Your task to perform on an android device: Open the phone app and click the voicemail tab. Image 0: 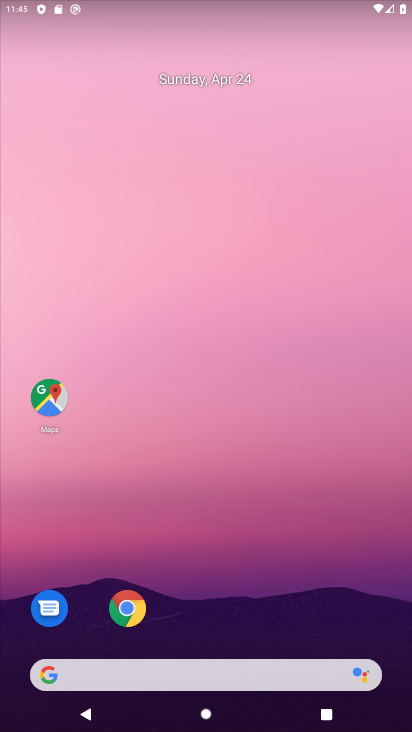
Step 0: drag from (230, 715) to (227, 218)
Your task to perform on an android device: Open the phone app and click the voicemail tab. Image 1: 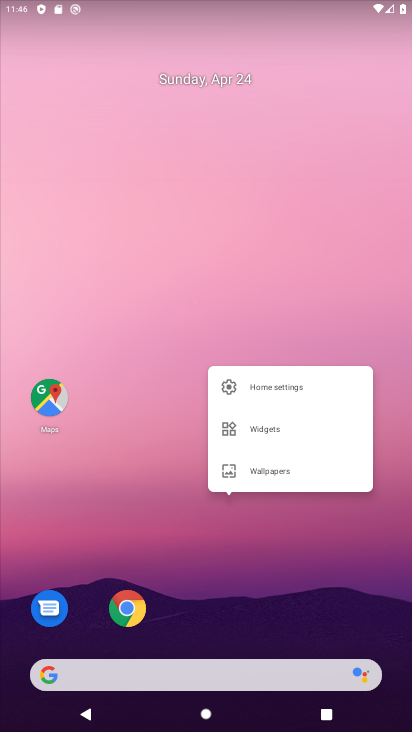
Step 1: click (220, 322)
Your task to perform on an android device: Open the phone app and click the voicemail tab. Image 2: 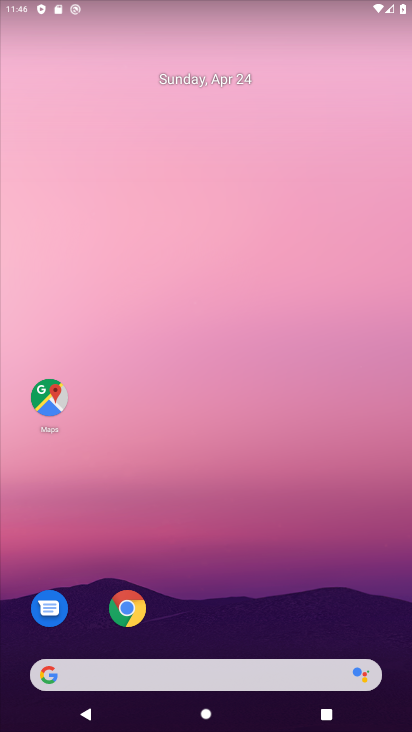
Step 2: drag from (245, 725) to (232, 108)
Your task to perform on an android device: Open the phone app and click the voicemail tab. Image 3: 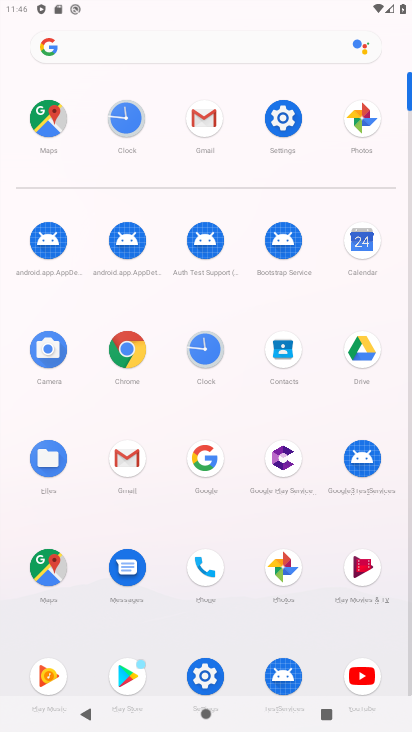
Step 3: click (202, 562)
Your task to perform on an android device: Open the phone app and click the voicemail tab. Image 4: 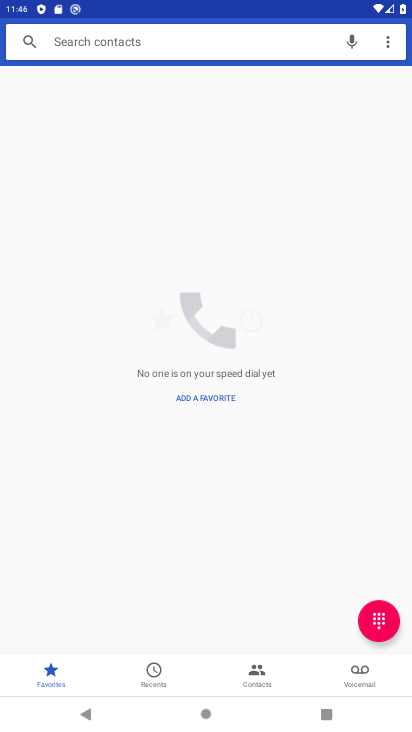
Step 4: click (363, 680)
Your task to perform on an android device: Open the phone app and click the voicemail tab. Image 5: 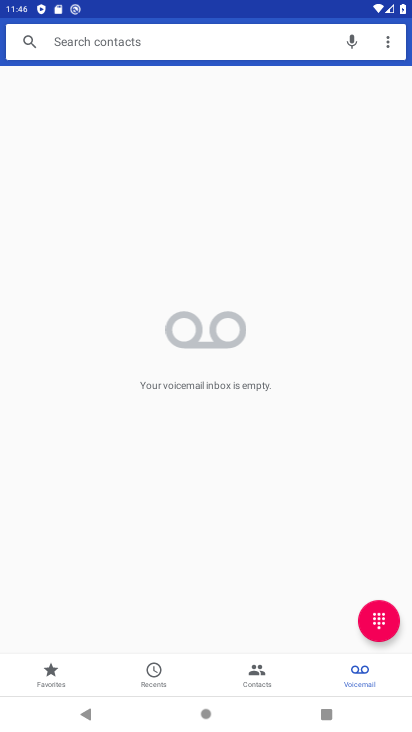
Step 5: task complete